Your task to perform on an android device: Clear all items from cart on ebay.com. Add razer blade to the cart on ebay.com Image 0: 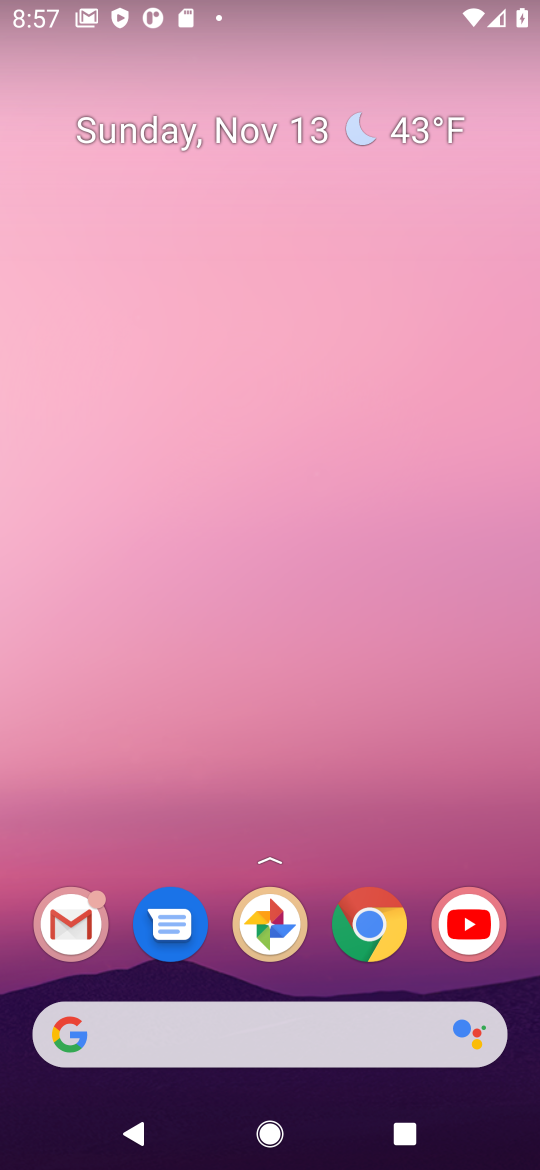
Step 0: click (358, 921)
Your task to perform on an android device: Clear all items from cart on ebay.com. Add razer blade to the cart on ebay.com Image 1: 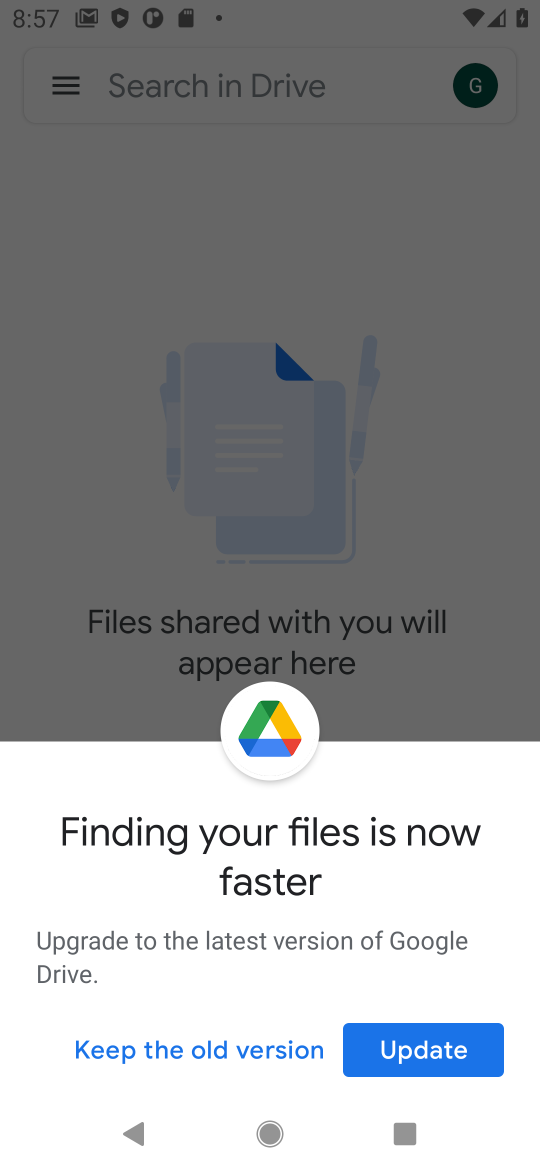
Step 1: press home button
Your task to perform on an android device: Clear all items from cart on ebay.com. Add razer blade to the cart on ebay.com Image 2: 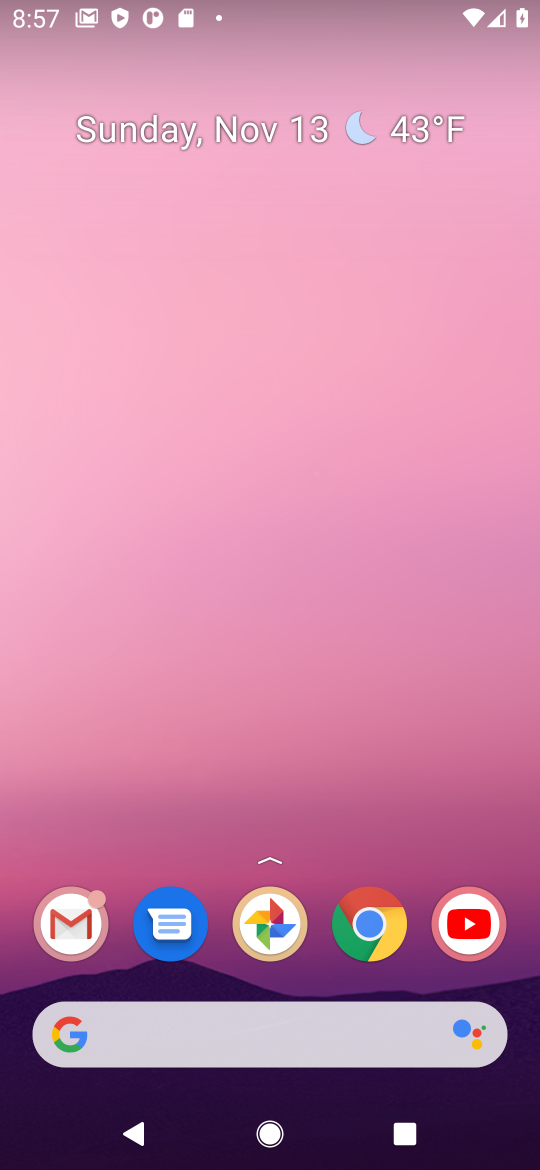
Step 2: click (379, 928)
Your task to perform on an android device: Clear all items from cart on ebay.com. Add razer blade to the cart on ebay.com Image 3: 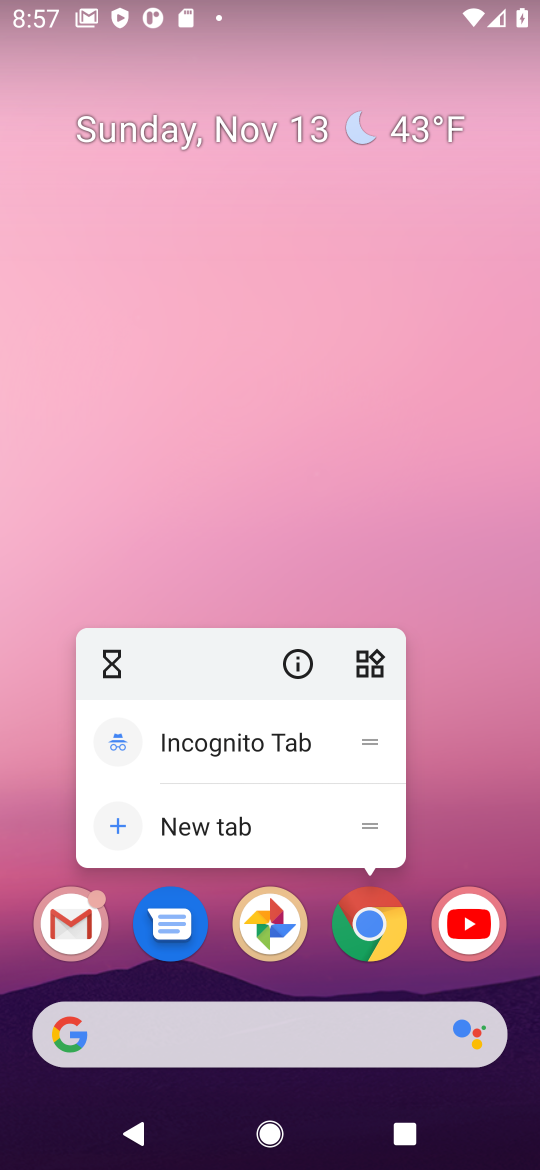
Step 3: click (379, 934)
Your task to perform on an android device: Clear all items from cart on ebay.com. Add razer blade to the cart on ebay.com Image 4: 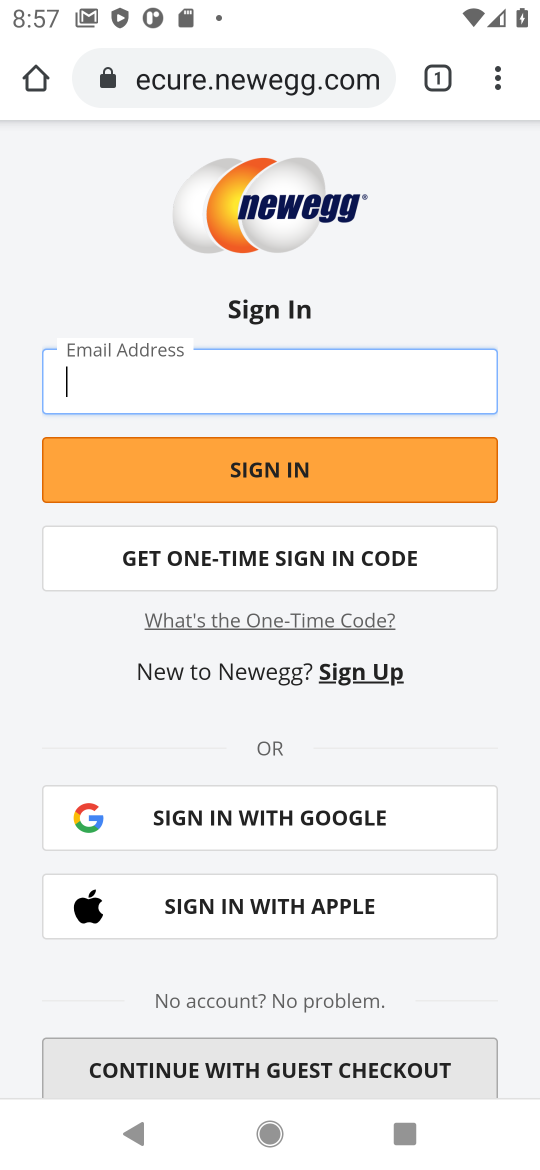
Step 4: click (247, 75)
Your task to perform on an android device: Clear all items from cart on ebay.com. Add razer blade to the cart on ebay.com Image 5: 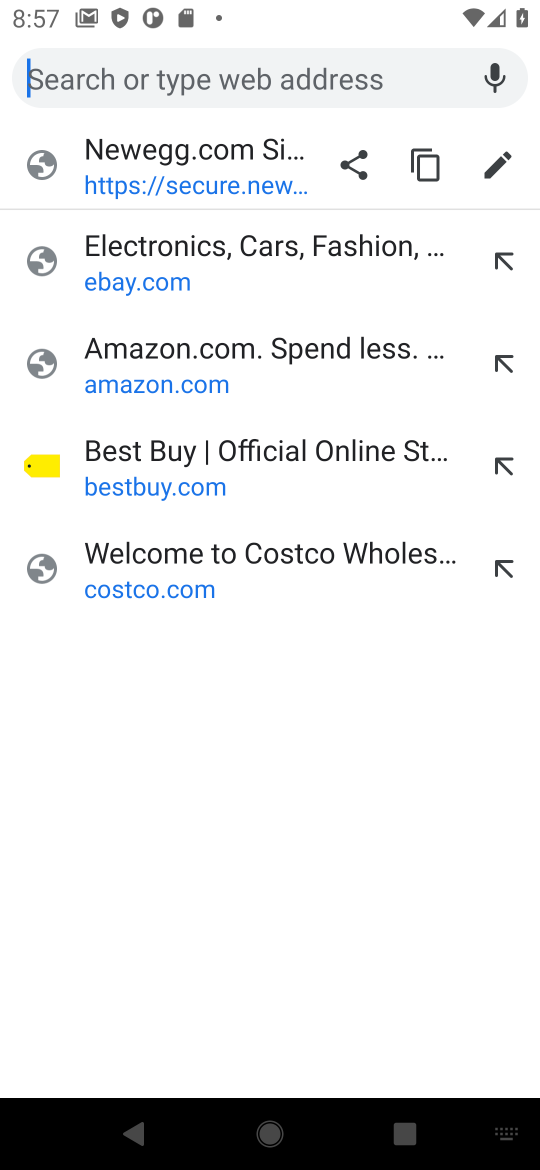
Step 5: click (134, 265)
Your task to perform on an android device: Clear all items from cart on ebay.com. Add razer blade to the cart on ebay.com Image 6: 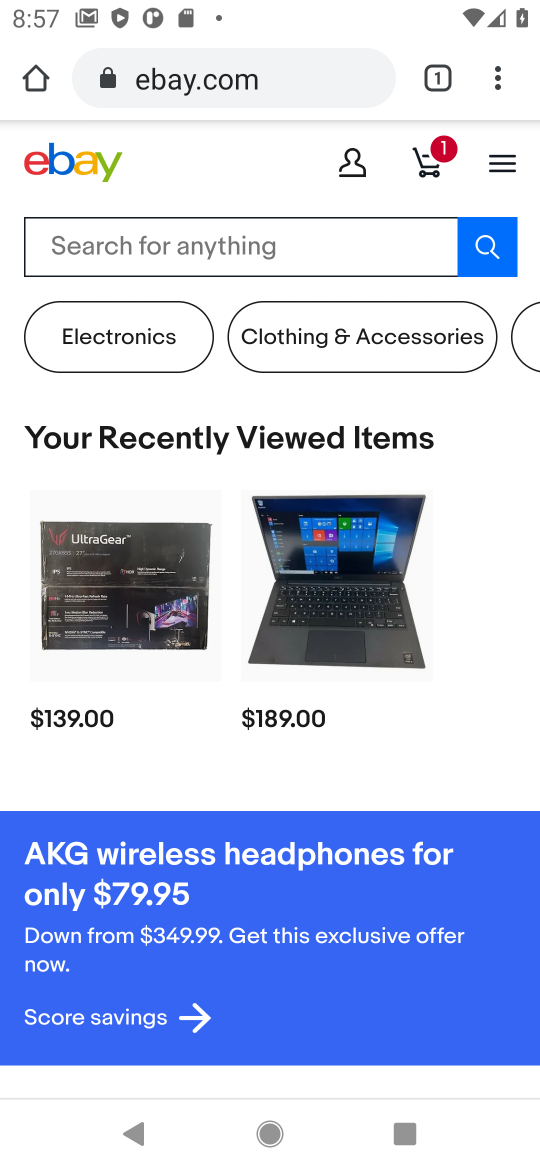
Step 6: click (434, 158)
Your task to perform on an android device: Clear all items from cart on ebay.com. Add razer blade to the cart on ebay.com Image 7: 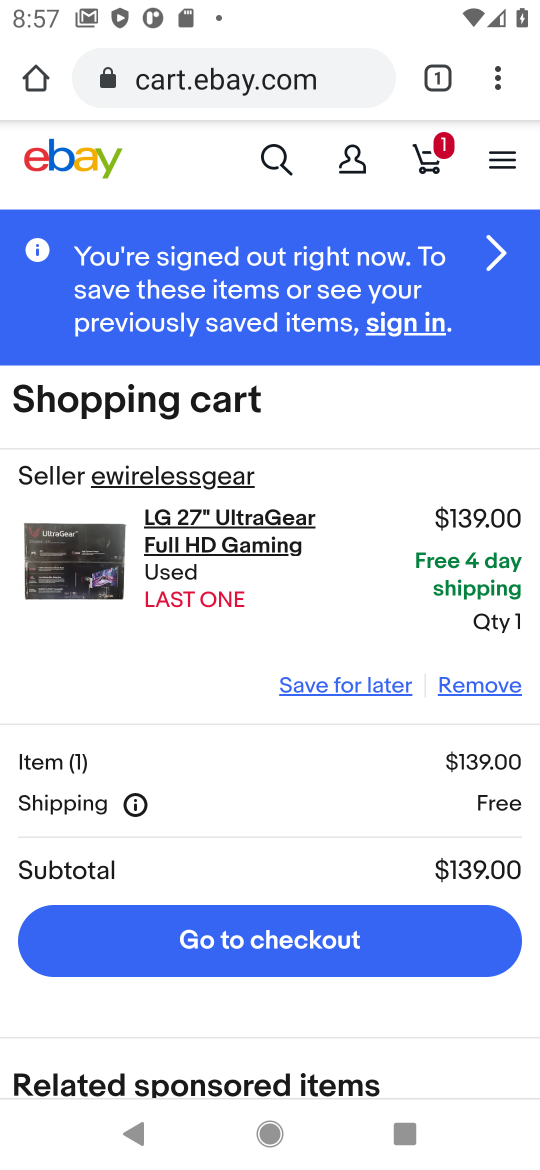
Step 7: click (501, 687)
Your task to perform on an android device: Clear all items from cart on ebay.com. Add razer blade to the cart on ebay.com Image 8: 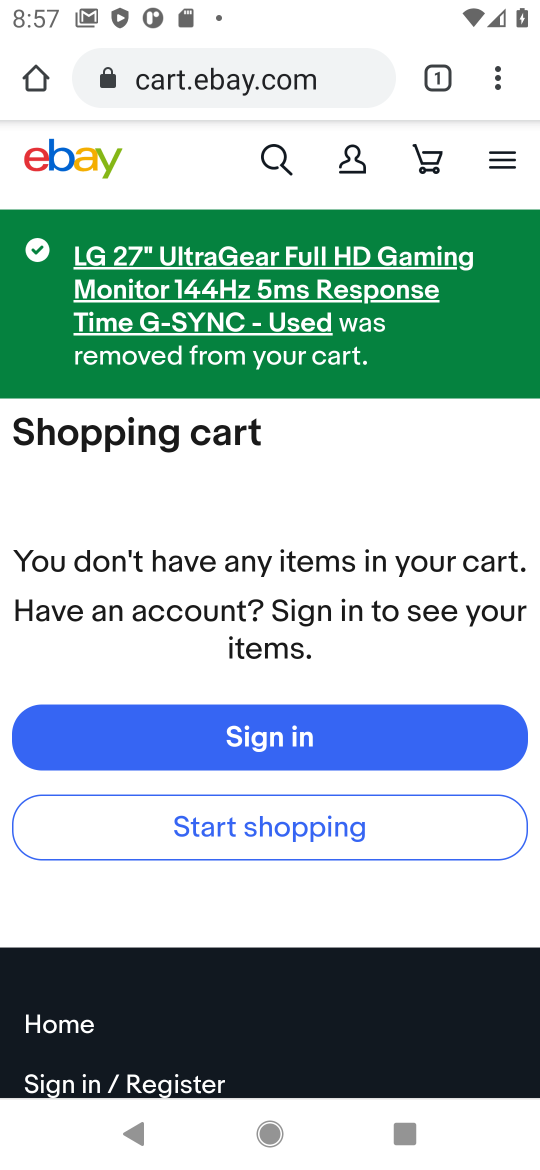
Step 8: click (272, 150)
Your task to perform on an android device: Clear all items from cart on ebay.com. Add razer blade to the cart on ebay.com Image 9: 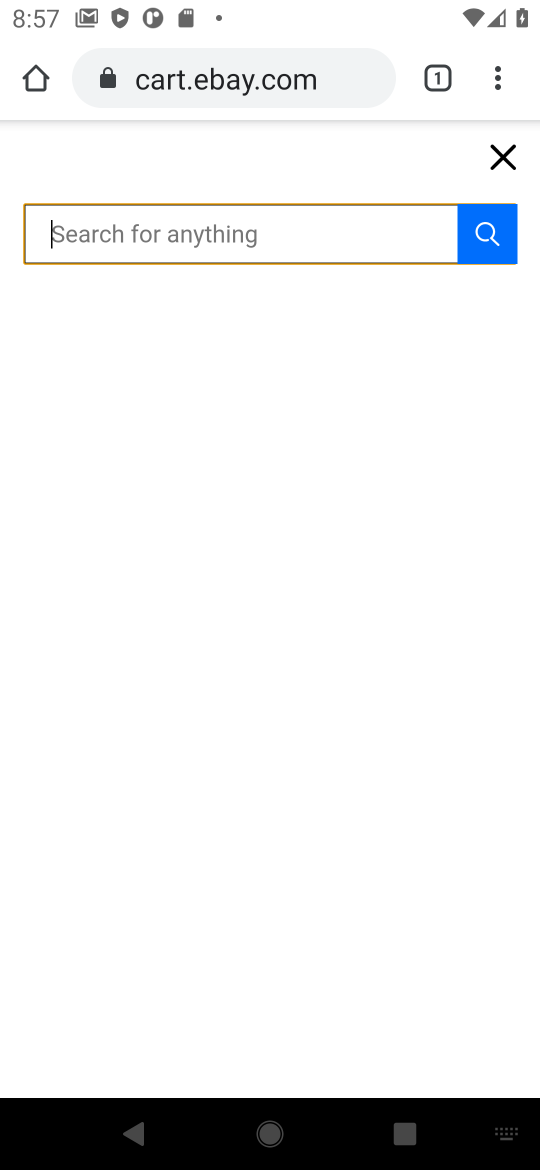
Step 9: click (209, 222)
Your task to perform on an android device: Clear all items from cart on ebay.com. Add razer blade to the cart on ebay.com Image 10: 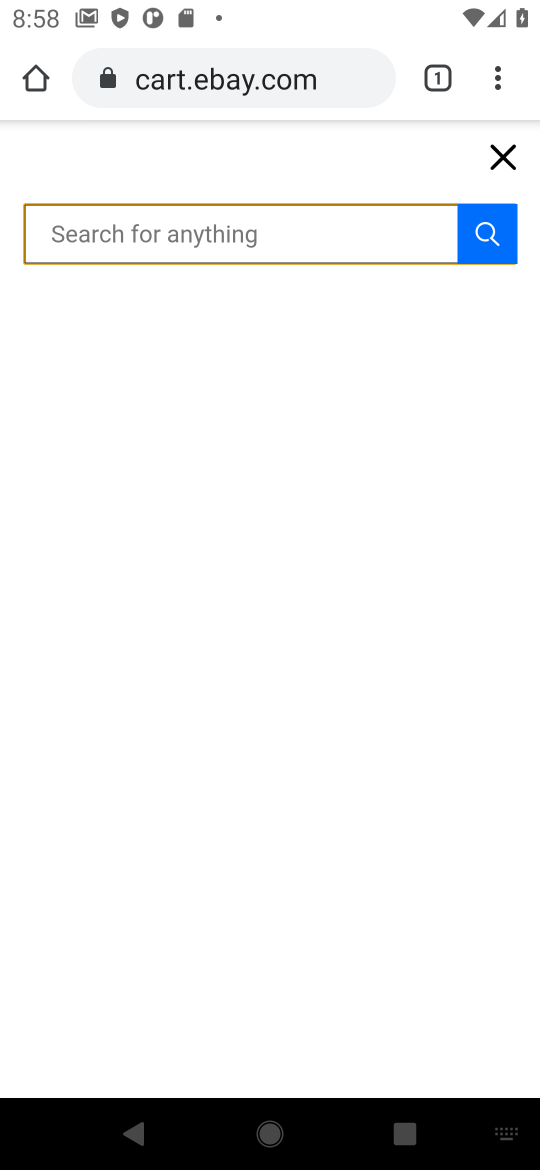
Step 10: type "razer blade"
Your task to perform on an android device: Clear all items from cart on ebay.com. Add razer blade to the cart on ebay.com Image 11: 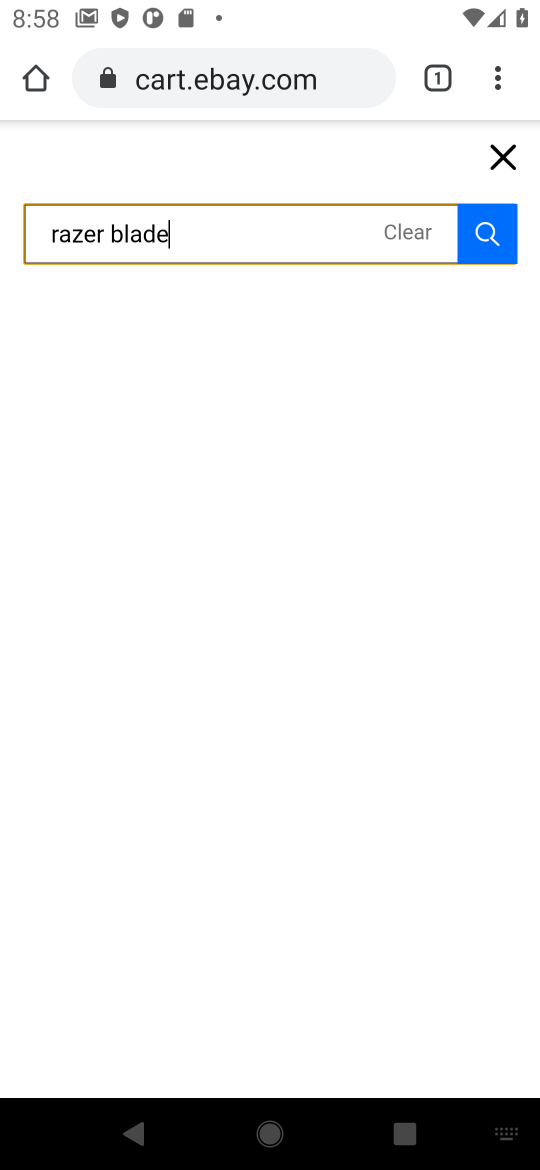
Step 11: press enter
Your task to perform on an android device: Clear all items from cart on ebay.com. Add razer blade to the cart on ebay.com Image 12: 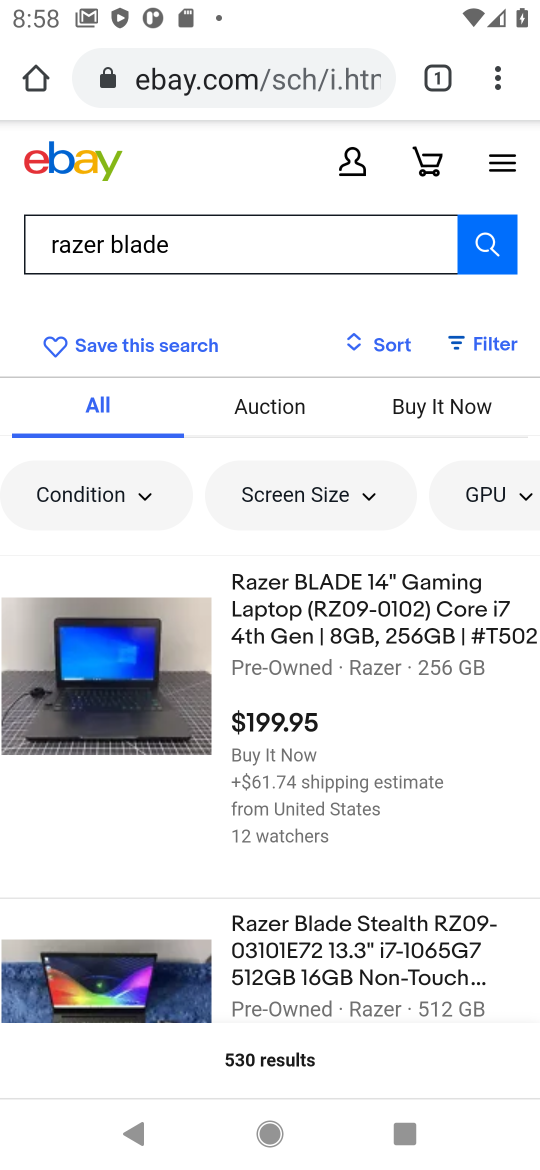
Step 12: click (332, 659)
Your task to perform on an android device: Clear all items from cart on ebay.com. Add razer blade to the cart on ebay.com Image 13: 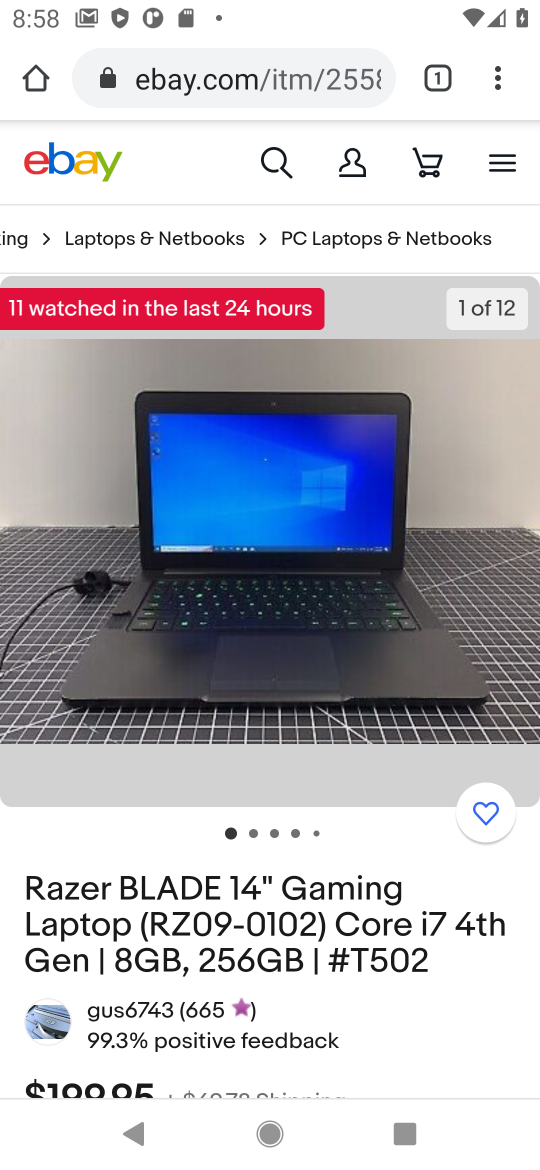
Step 13: drag from (188, 986) to (383, 113)
Your task to perform on an android device: Clear all items from cart on ebay.com. Add razer blade to the cart on ebay.com Image 14: 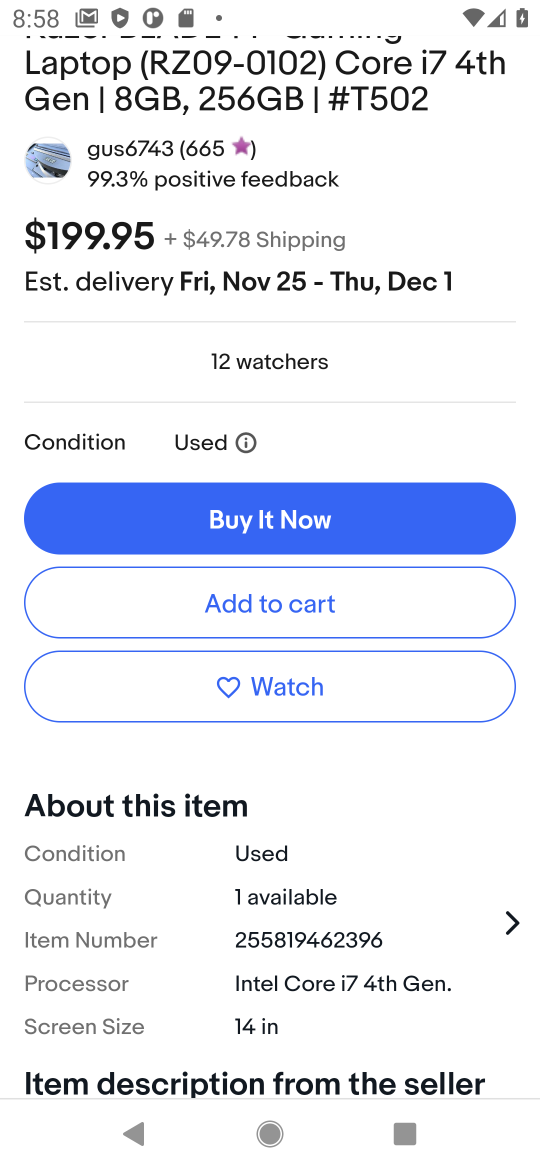
Step 14: click (283, 602)
Your task to perform on an android device: Clear all items from cart on ebay.com. Add razer blade to the cart on ebay.com Image 15: 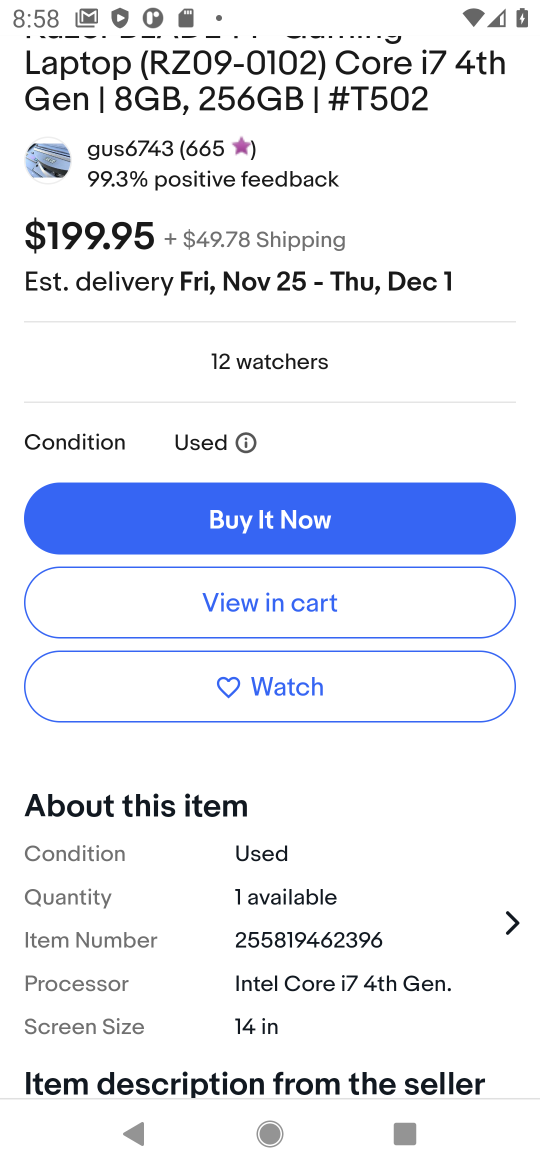
Step 15: click (283, 604)
Your task to perform on an android device: Clear all items from cart on ebay.com. Add razer blade to the cart on ebay.com Image 16: 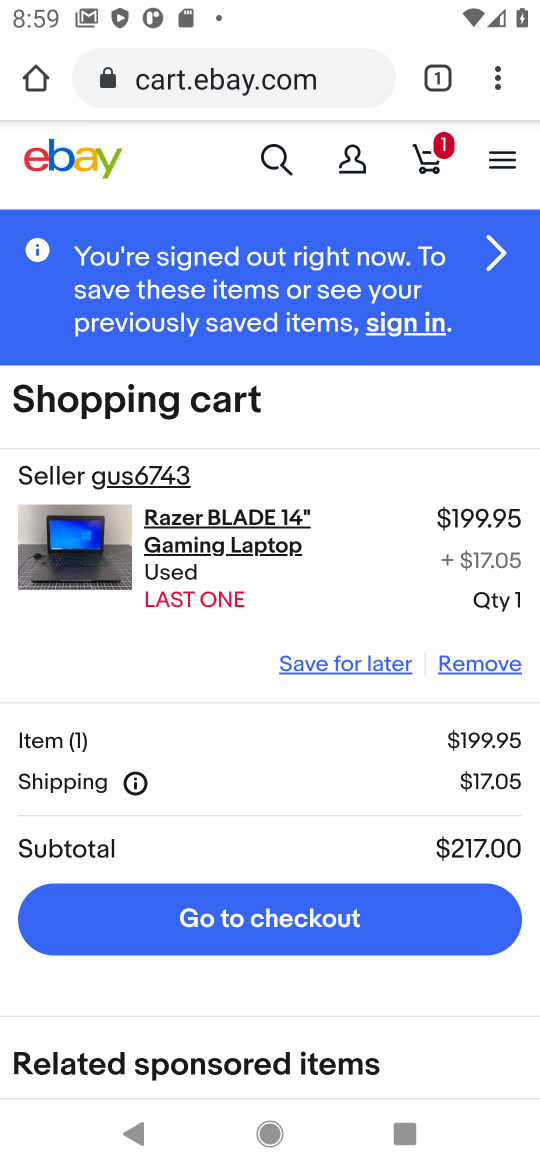
Step 16: task complete